Your task to perform on an android device: find which apps use the phone's location Image 0: 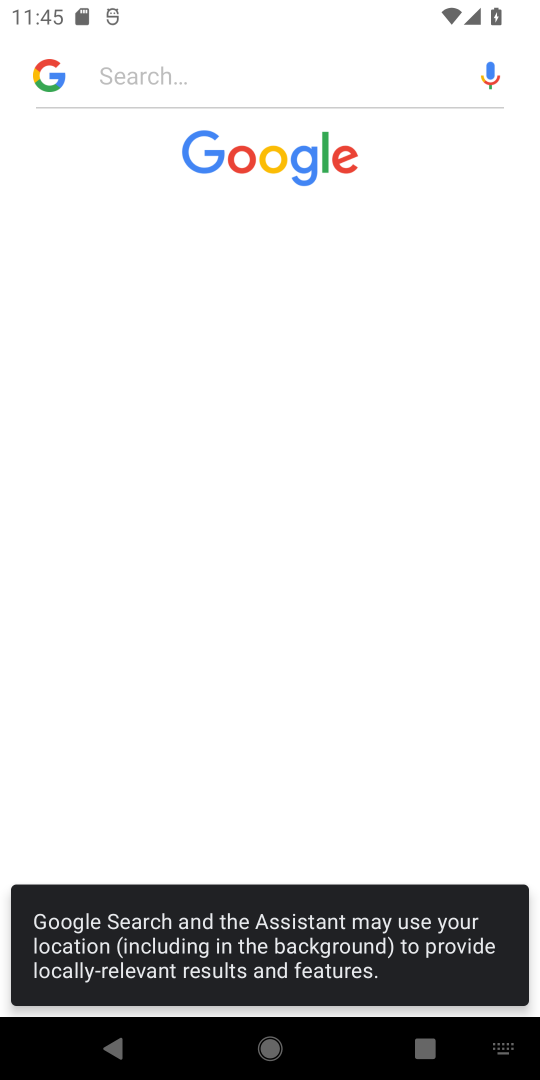
Step 0: press back button
Your task to perform on an android device: find which apps use the phone's location Image 1: 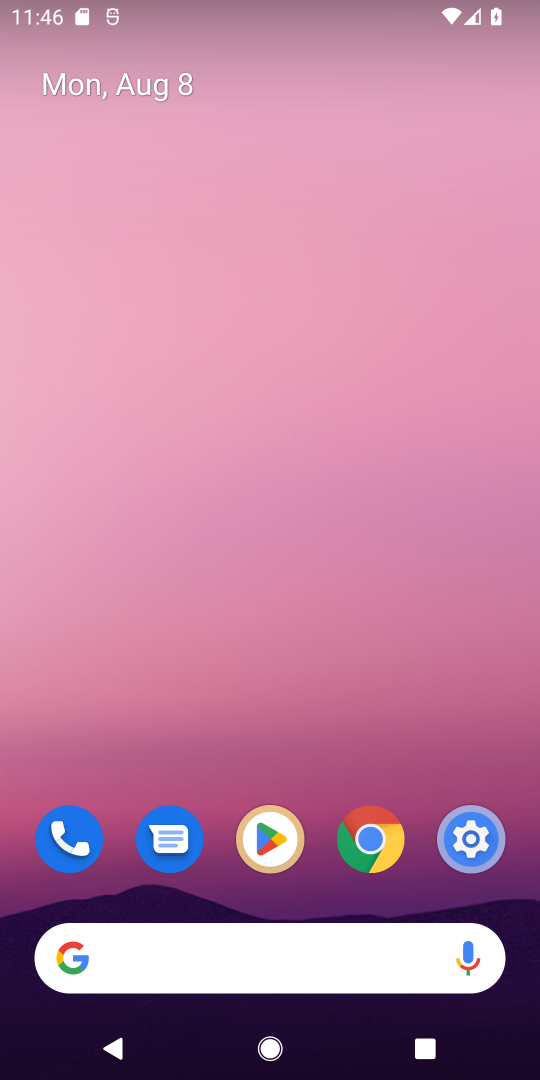
Step 1: click (463, 857)
Your task to perform on an android device: find which apps use the phone's location Image 2: 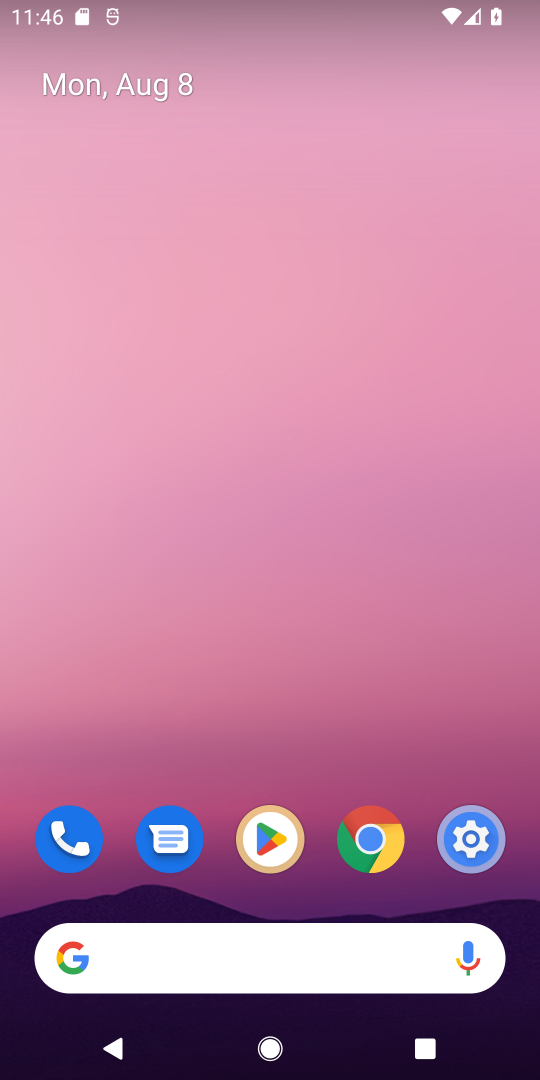
Step 2: click (467, 858)
Your task to perform on an android device: find which apps use the phone's location Image 3: 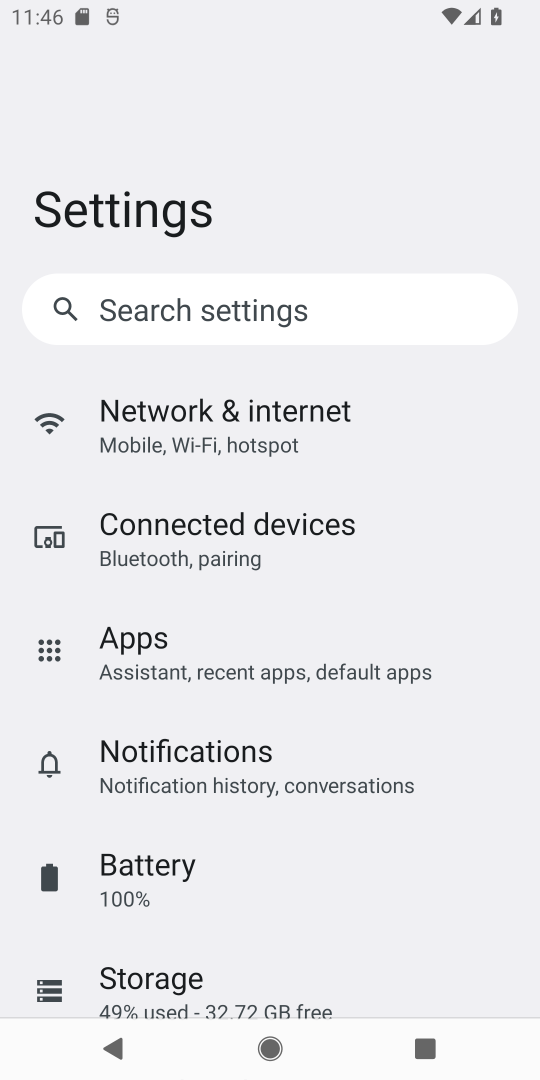
Step 3: drag from (214, 773) to (117, 308)
Your task to perform on an android device: find which apps use the phone's location Image 4: 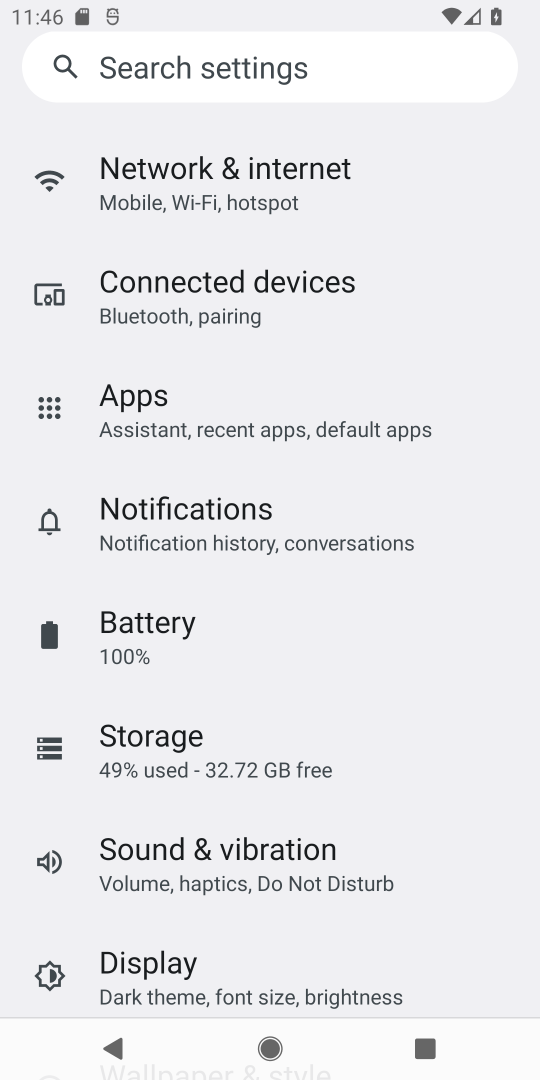
Step 4: drag from (188, 755) to (258, 49)
Your task to perform on an android device: find which apps use the phone's location Image 5: 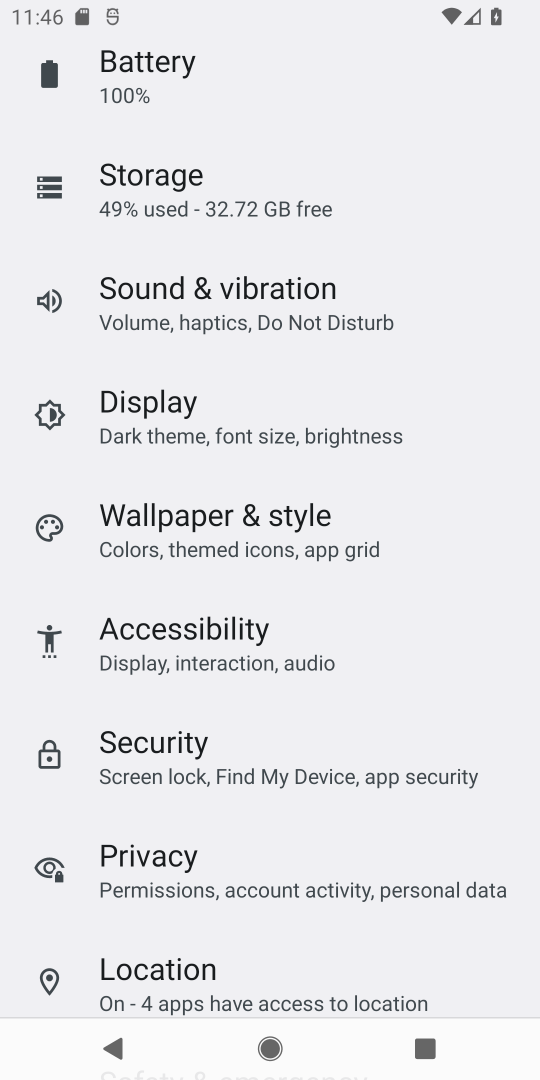
Step 5: click (187, 952)
Your task to perform on an android device: find which apps use the phone's location Image 6: 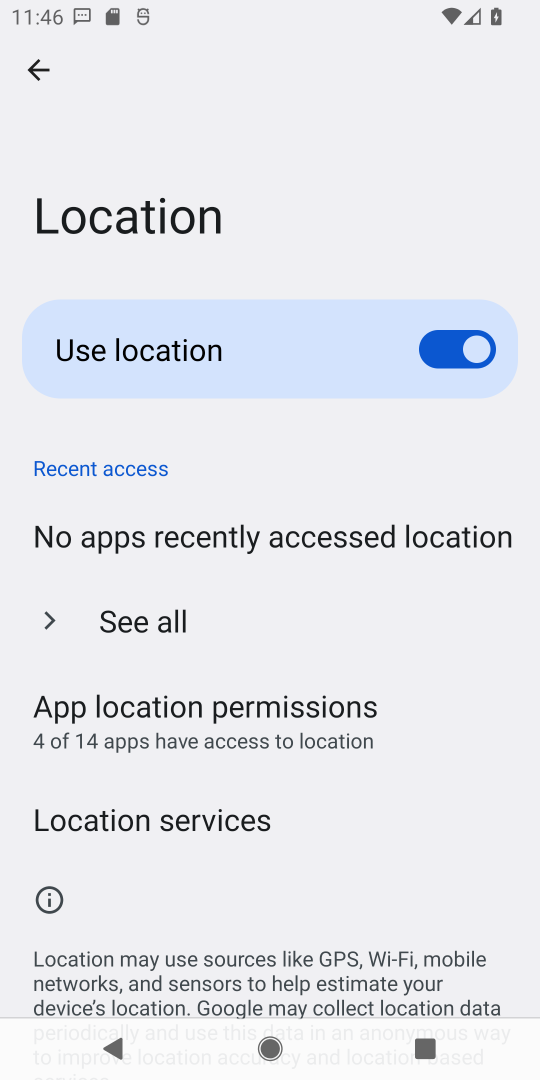
Step 6: click (213, 747)
Your task to perform on an android device: find which apps use the phone's location Image 7: 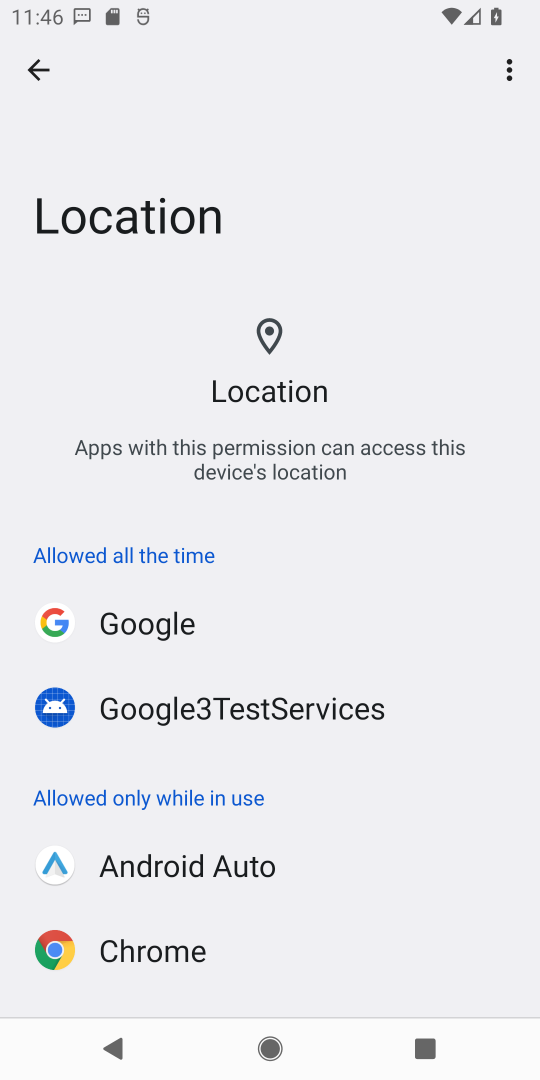
Step 7: task complete